Your task to perform on an android device: empty trash in google photos Image 0: 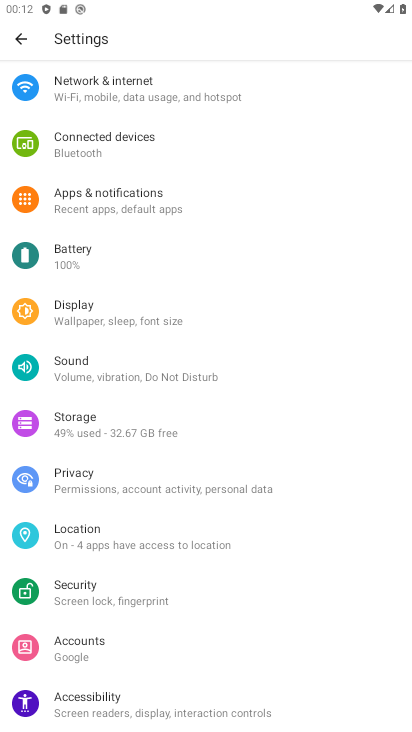
Step 0: press back button
Your task to perform on an android device: empty trash in google photos Image 1: 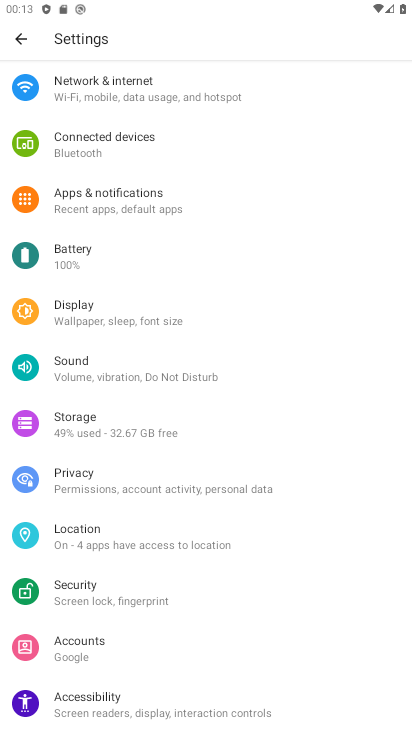
Step 1: press back button
Your task to perform on an android device: empty trash in google photos Image 2: 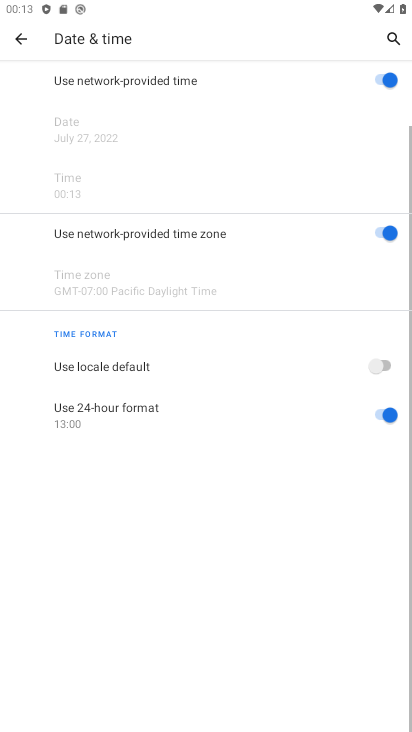
Step 2: press back button
Your task to perform on an android device: empty trash in google photos Image 3: 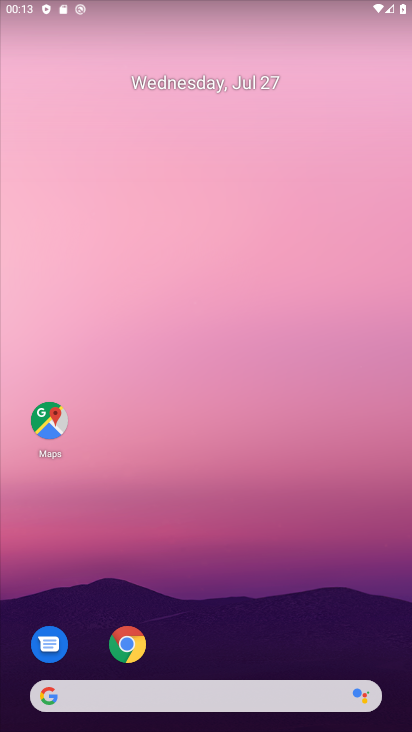
Step 3: drag from (207, 520) to (219, 46)
Your task to perform on an android device: empty trash in google photos Image 4: 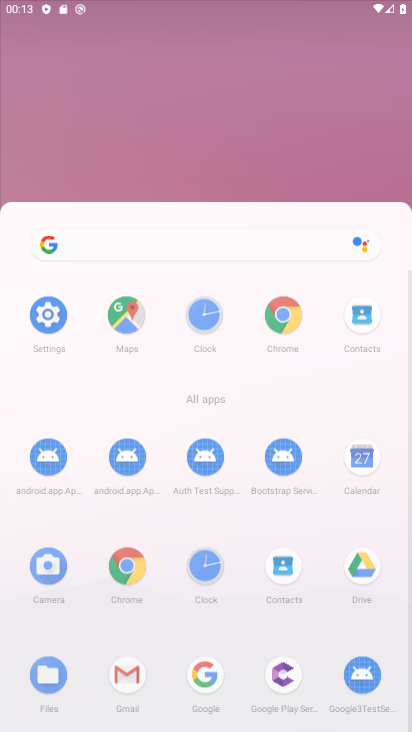
Step 4: click (307, 183)
Your task to perform on an android device: empty trash in google photos Image 5: 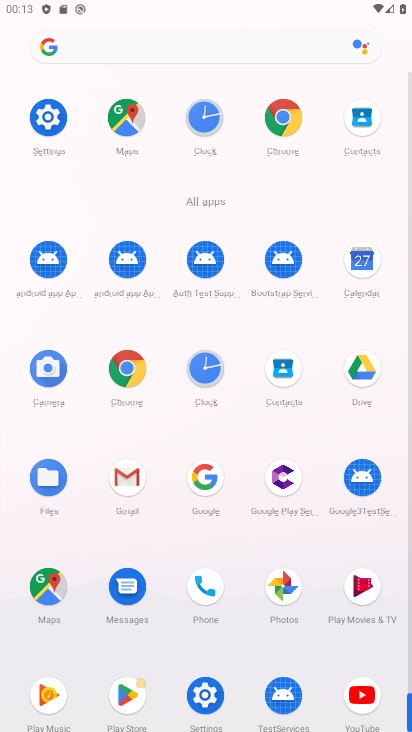
Step 5: click (274, 576)
Your task to perform on an android device: empty trash in google photos Image 6: 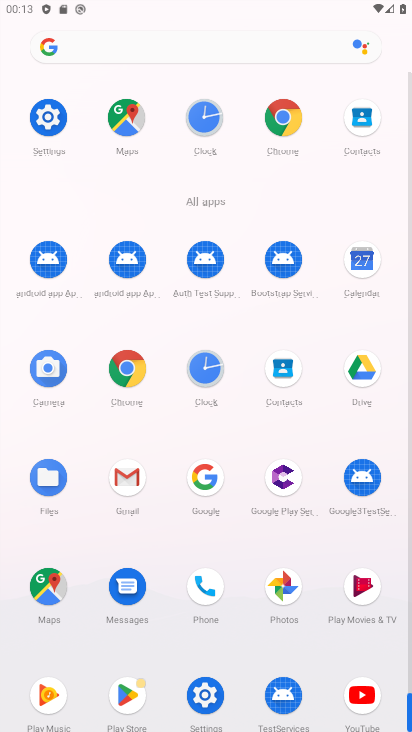
Step 6: click (274, 581)
Your task to perform on an android device: empty trash in google photos Image 7: 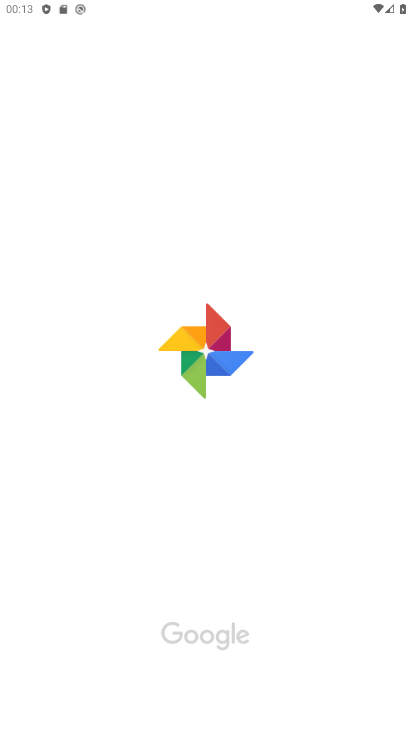
Step 7: click (271, 578)
Your task to perform on an android device: empty trash in google photos Image 8: 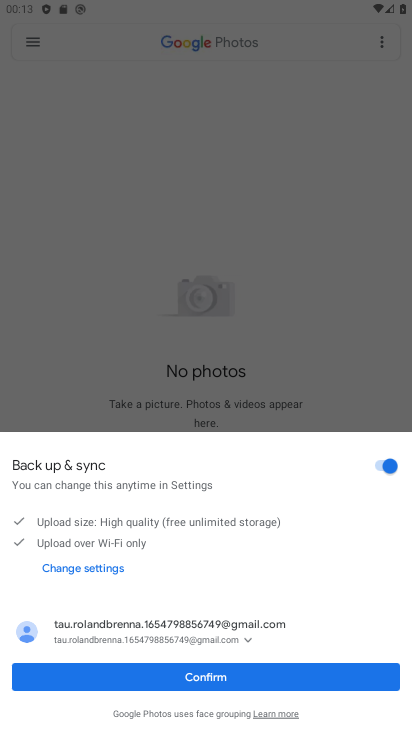
Step 8: drag from (210, 510) to (250, 104)
Your task to perform on an android device: empty trash in google photos Image 9: 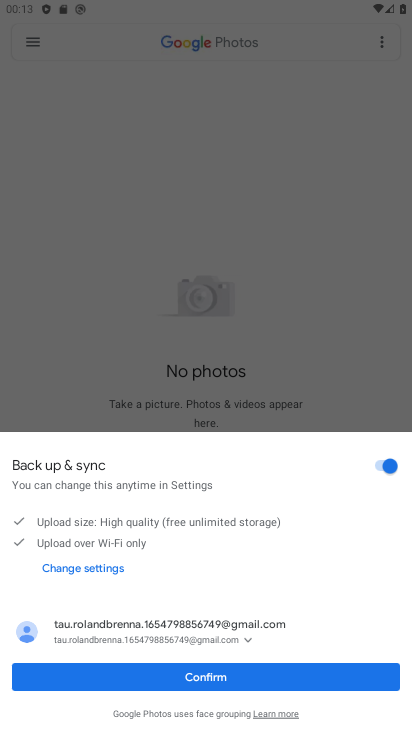
Step 9: drag from (272, 552) to (253, 213)
Your task to perform on an android device: empty trash in google photos Image 10: 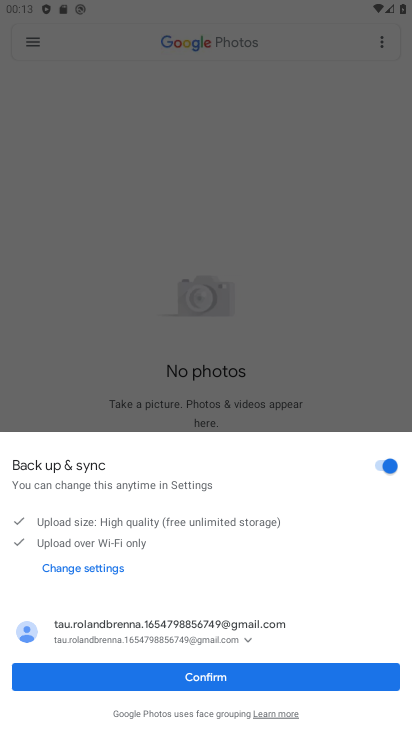
Step 10: click (238, 679)
Your task to perform on an android device: empty trash in google photos Image 11: 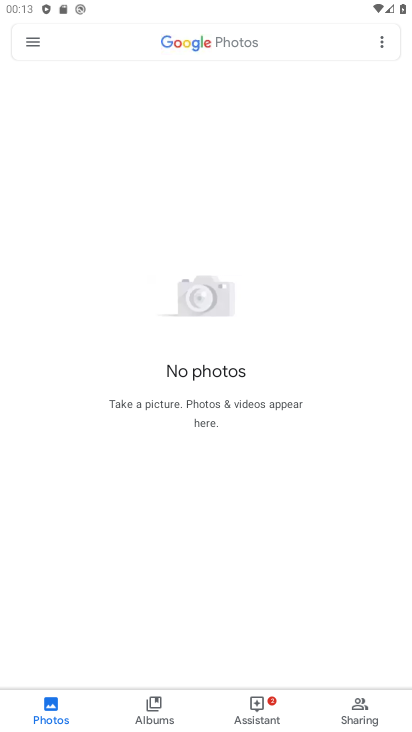
Step 11: click (33, 42)
Your task to perform on an android device: empty trash in google photos Image 12: 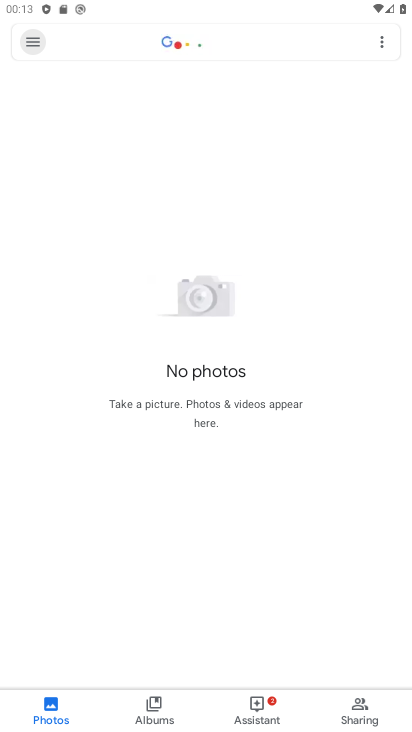
Step 12: click (31, 45)
Your task to perform on an android device: empty trash in google photos Image 13: 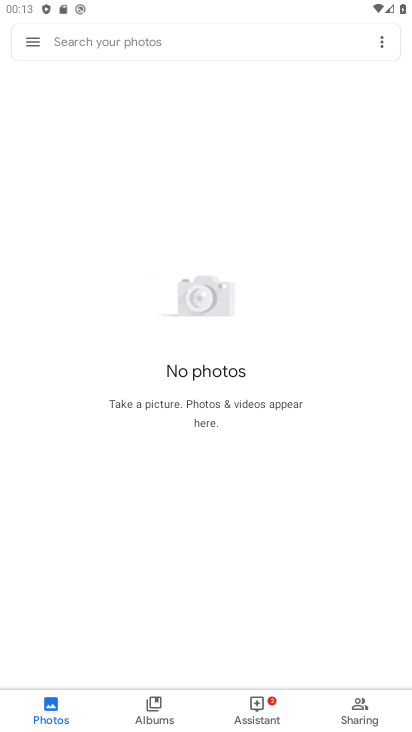
Step 13: click (34, 41)
Your task to perform on an android device: empty trash in google photos Image 14: 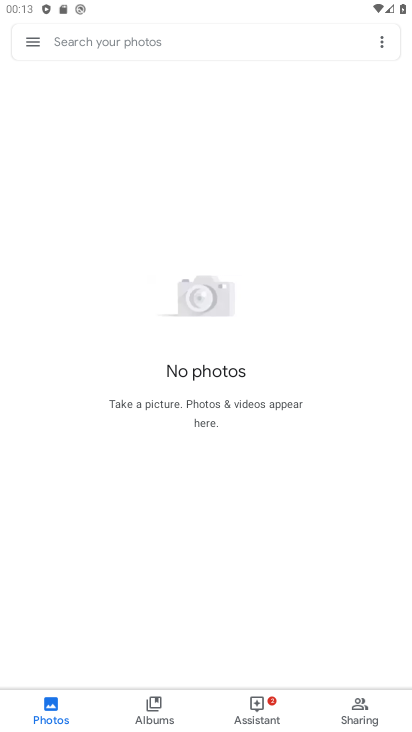
Step 14: click (25, 42)
Your task to perform on an android device: empty trash in google photos Image 15: 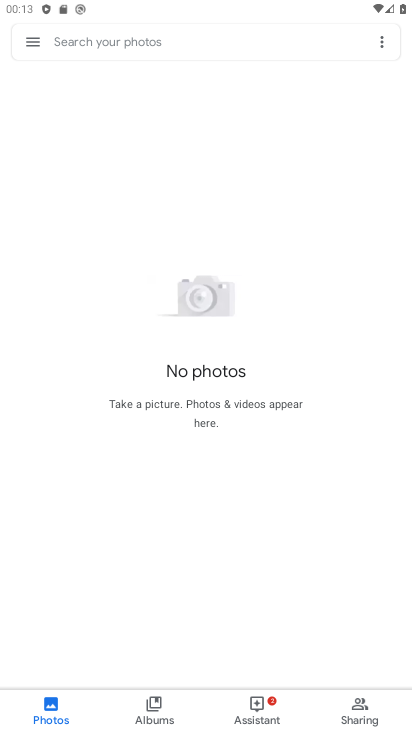
Step 15: click (20, 41)
Your task to perform on an android device: empty trash in google photos Image 16: 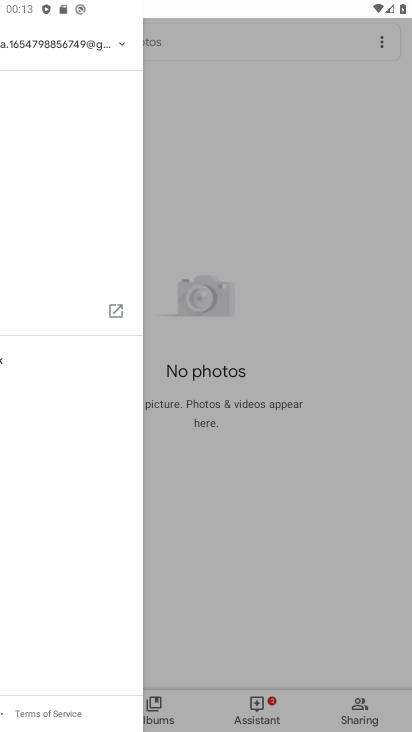
Step 16: click (2, 44)
Your task to perform on an android device: empty trash in google photos Image 17: 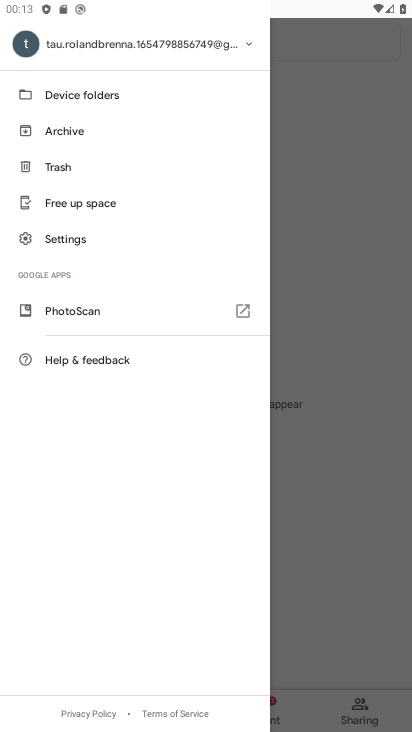
Step 17: click (52, 162)
Your task to perform on an android device: empty trash in google photos Image 18: 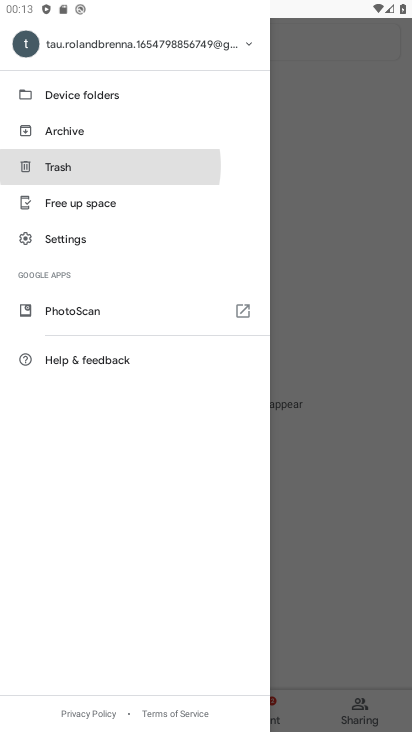
Step 18: click (51, 161)
Your task to perform on an android device: empty trash in google photos Image 19: 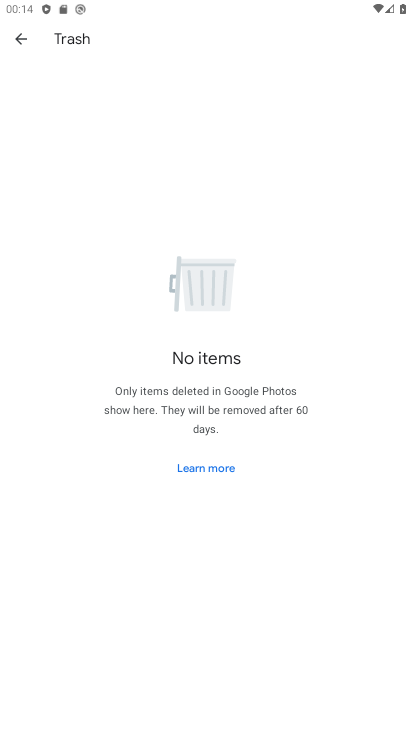
Step 19: task complete